Your task to perform on an android device: check battery use Image 0: 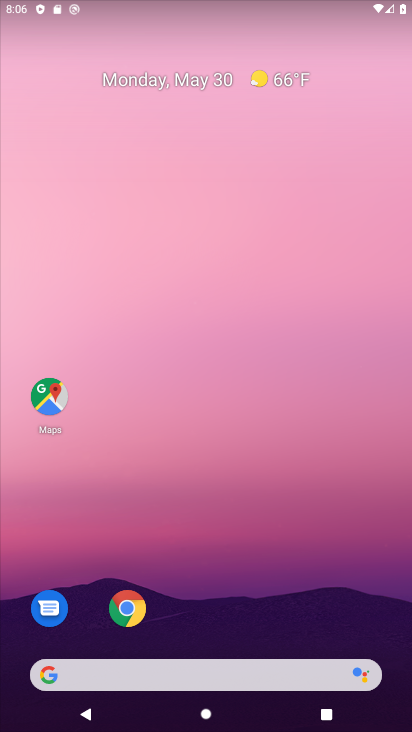
Step 0: click (244, 729)
Your task to perform on an android device: check battery use Image 1: 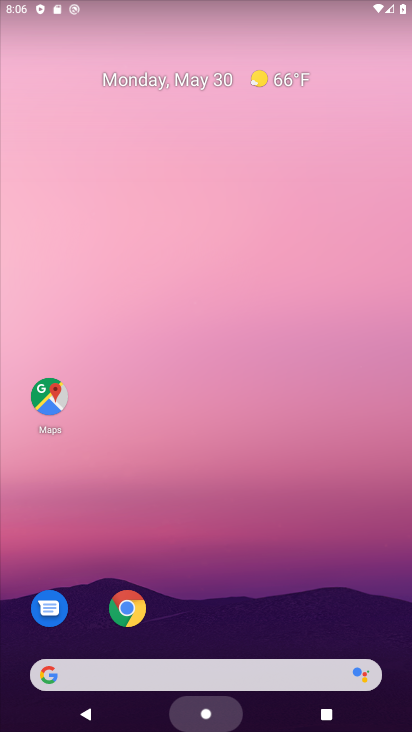
Step 1: drag from (249, 343) to (249, 73)
Your task to perform on an android device: check battery use Image 2: 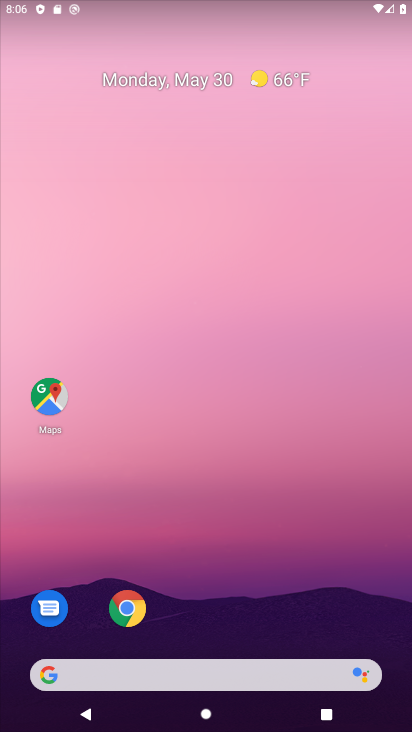
Step 2: drag from (220, 724) to (296, 54)
Your task to perform on an android device: check battery use Image 3: 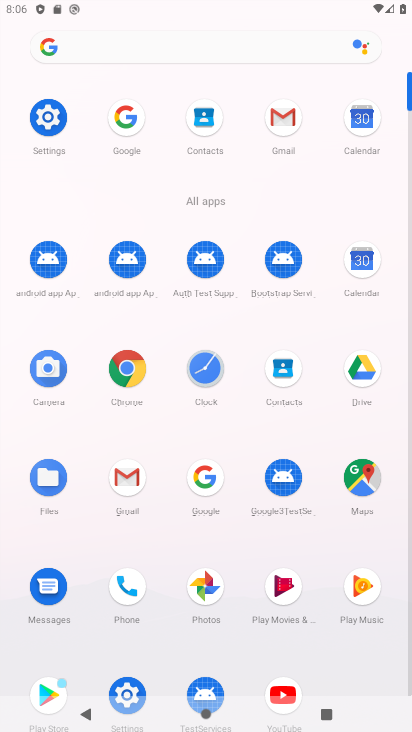
Step 3: click (42, 120)
Your task to perform on an android device: check battery use Image 4: 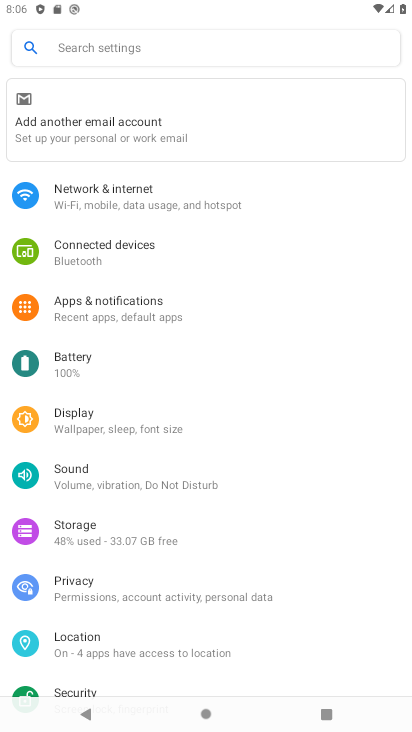
Step 4: click (70, 364)
Your task to perform on an android device: check battery use Image 5: 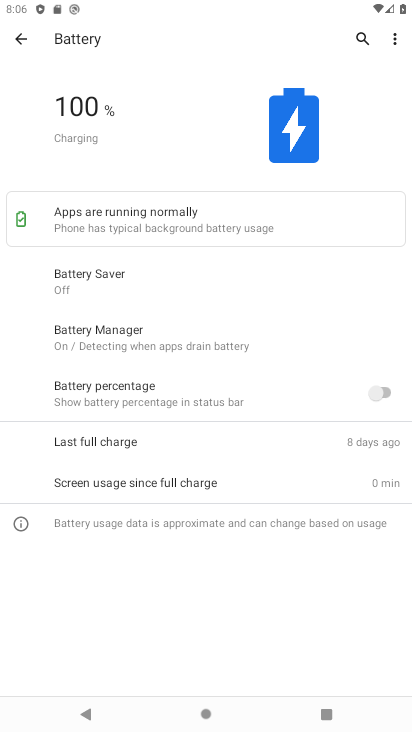
Step 5: click (396, 42)
Your task to perform on an android device: check battery use Image 6: 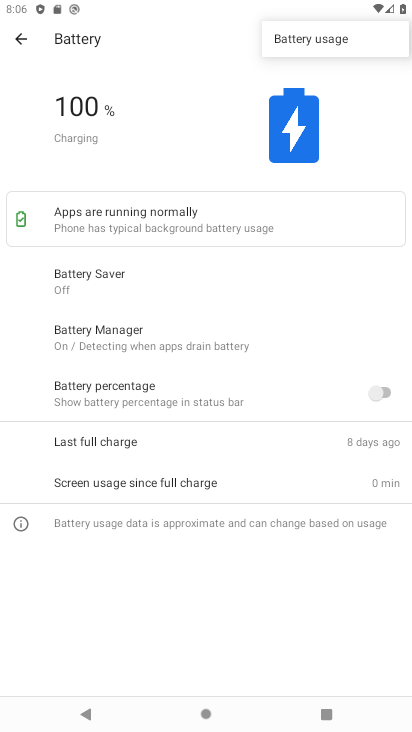
Step 6: click (324, 38)
Your task to perform on an android device: check battery use Image 7: 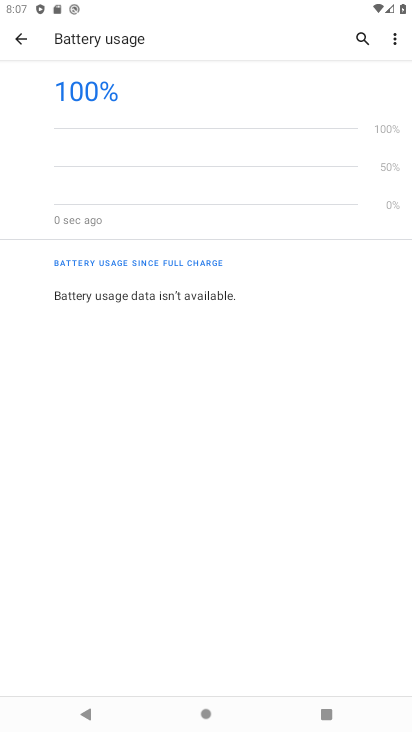
Step 7: task complete